Your task to perform on an android device: empty trash in the gmail app Image 0: 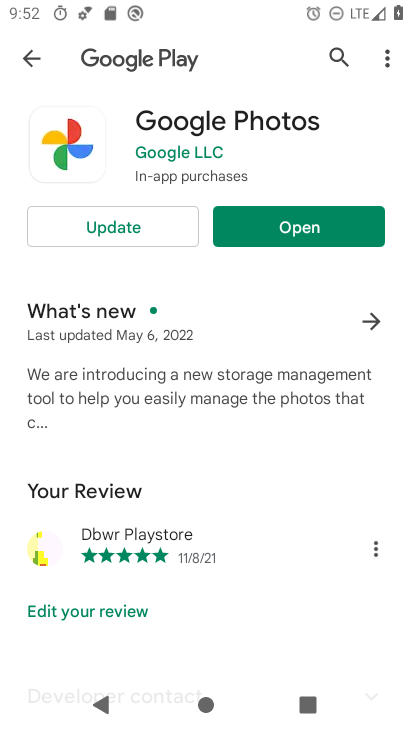
Step 0: press home button
Your task to perform on an android device: empty trash in the gmail app Image 1: 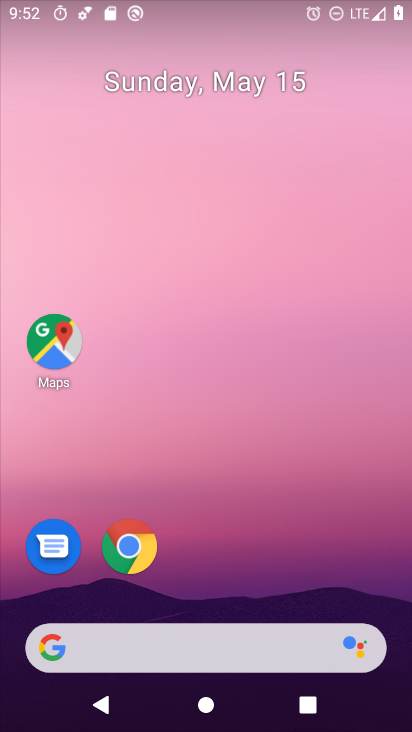
Step 1: drag from (244, 485) to (234, 80)
Your task to perform on an android device: empty trash in the gmail app Image 2: 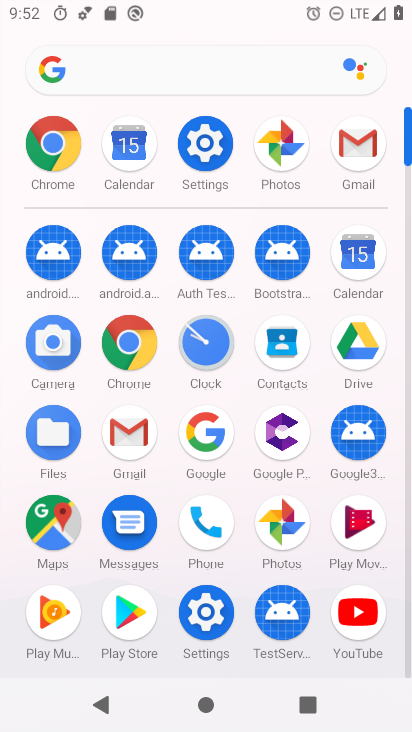
Step 2: click (353, 153)
Your task to perform on an android device: empty trash in the gmail app Image 3: 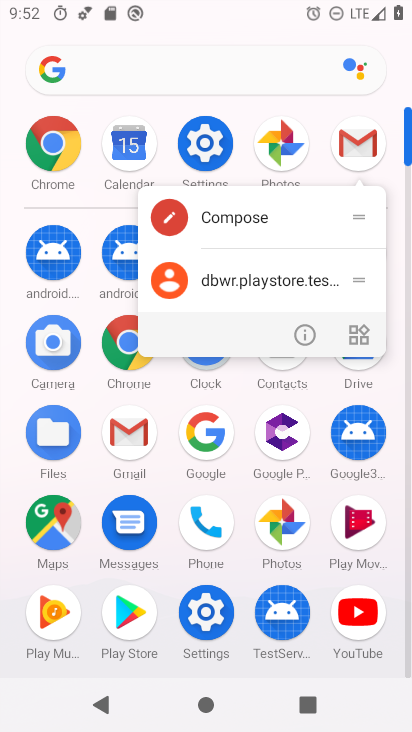
Step 3: click (360, 137)
Your task to perform on an android device: empty trash in the gmail app Image 4: 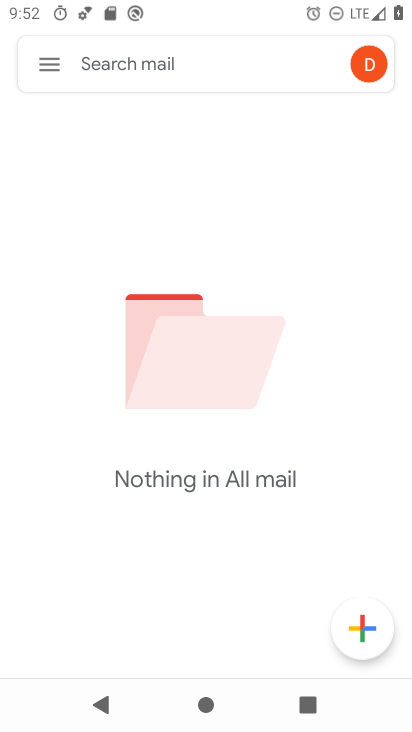
Step 4: click (43, 59)
Your task to perform on an android device: empty trash in the gmail app Image 5: 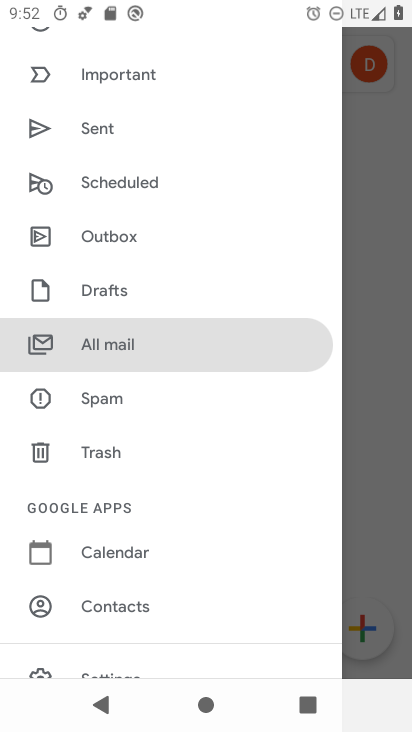
Step 5: click (136, 451)
Your task to perform on an android device: empty trash in the gmail app Image 6: 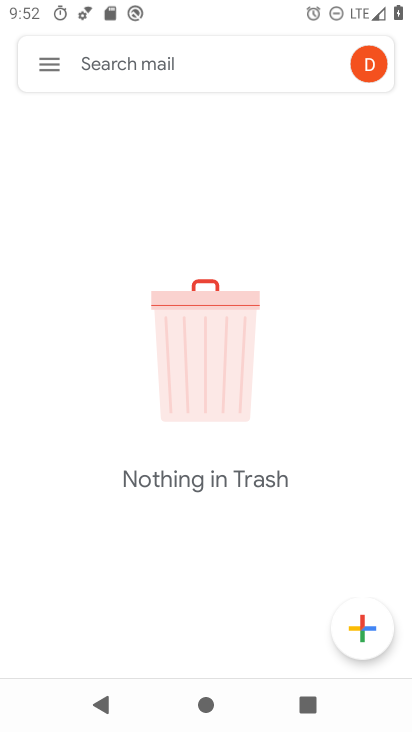
Step 6: task complete